Your task to perform on an android device: Open Google Chrome Image 0: 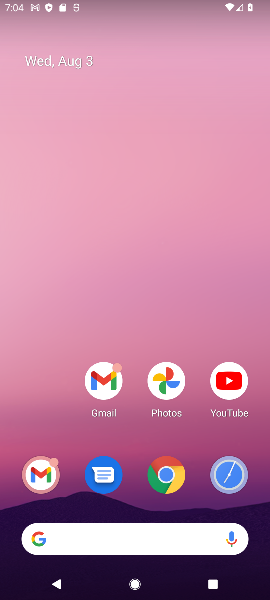
Step 0: click (175, 475)
Your task to perform on an android device: Open Google Chrome Image 1: 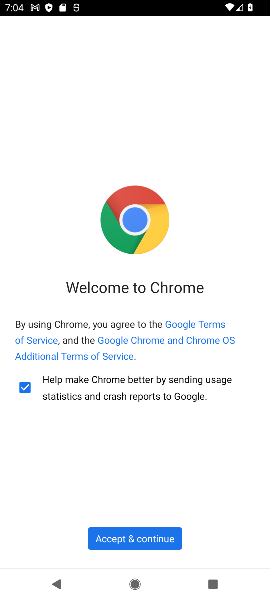
Step 1: click (134, 532)
Your task to perform on an android device: Open Google Chrome Image 2: 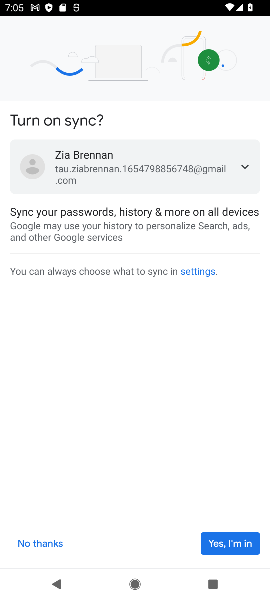
Step 2: click (210, 538)
Your task to perform on an android device: Open Google Chrome Image 3: 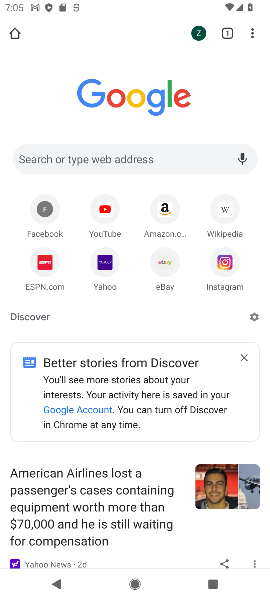
Step 3: task complete